Your task to perform on an android device: Search for vegetarian restaurants on Maps Image 0: 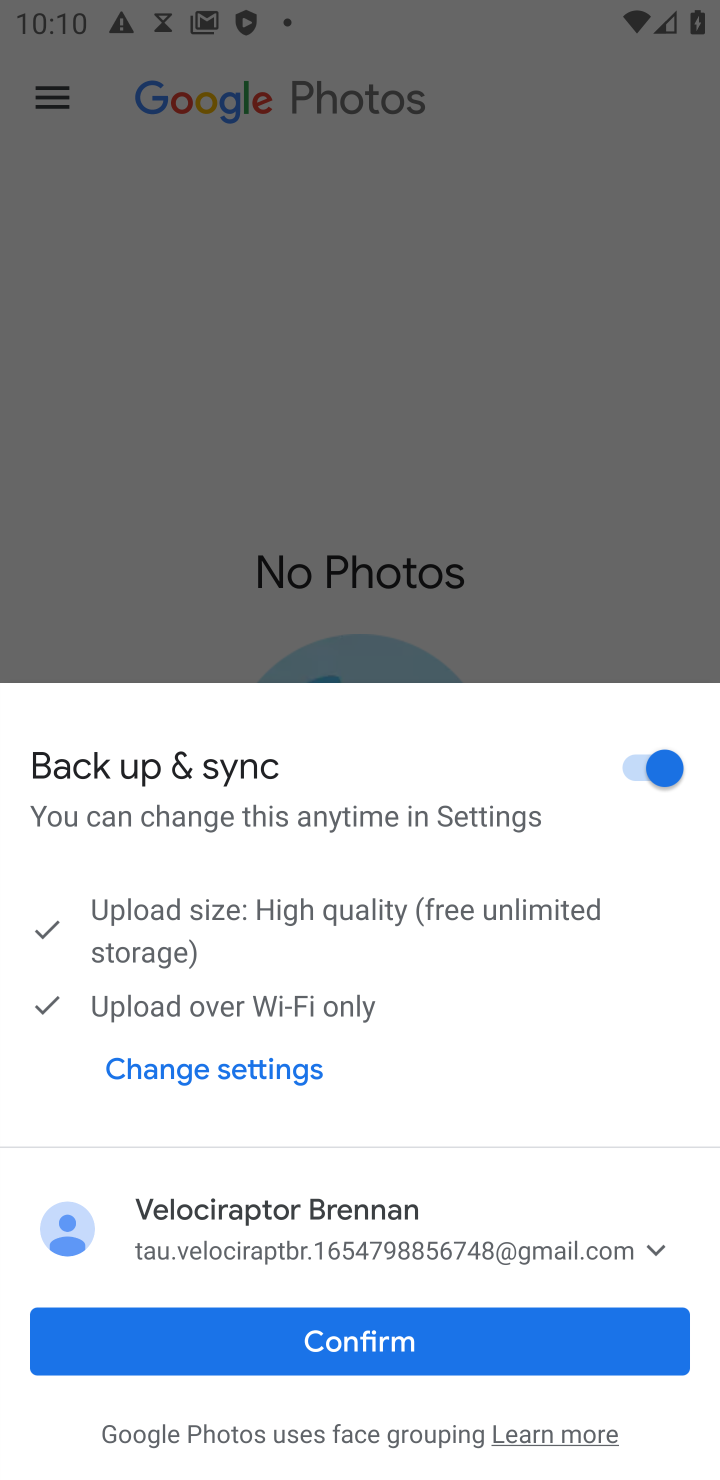
Step 0: press home button
Your task to perform on an android device: Search for vegetarian restaurants on Maps Image 1: 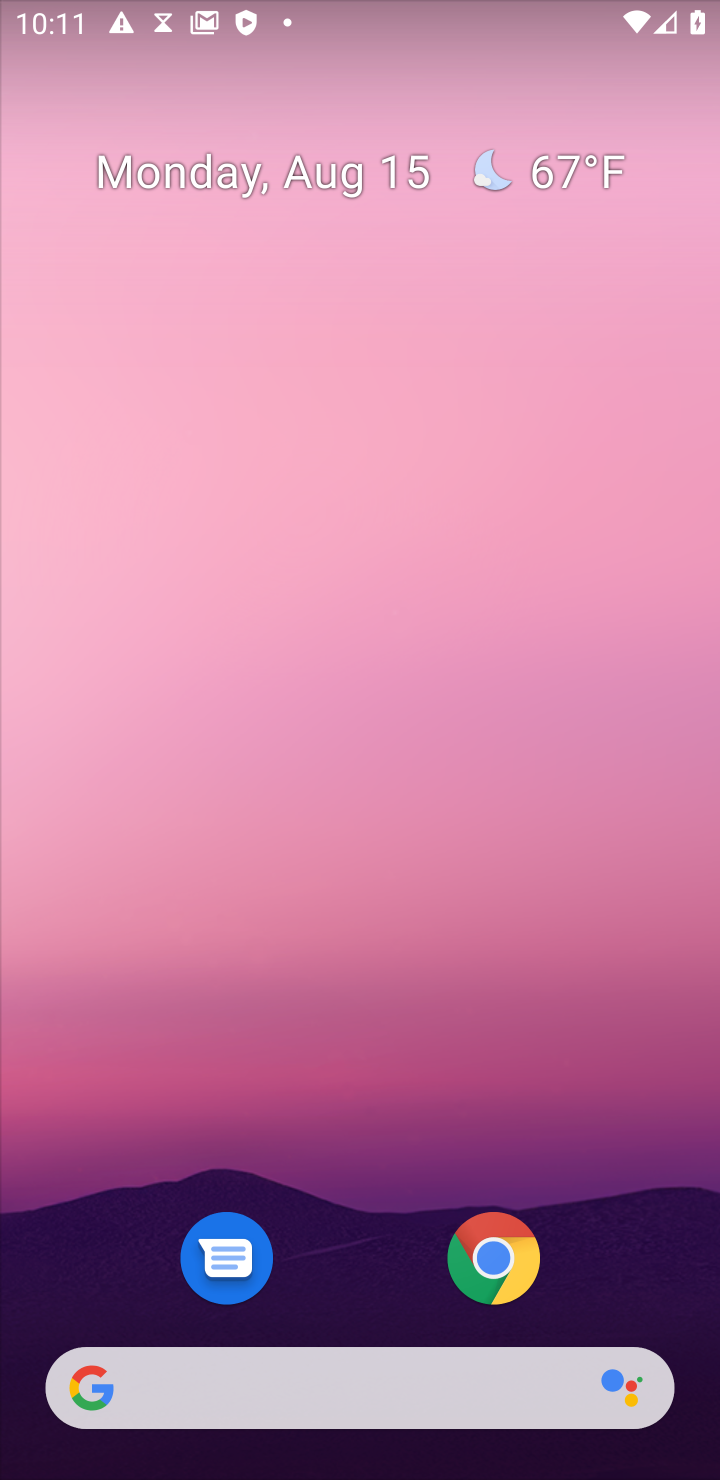
Step 1: drag from (375, 1056) to (372, 118)
Your task to perform on an android device: Search for vegetarian restaurants on Maps Image 2: 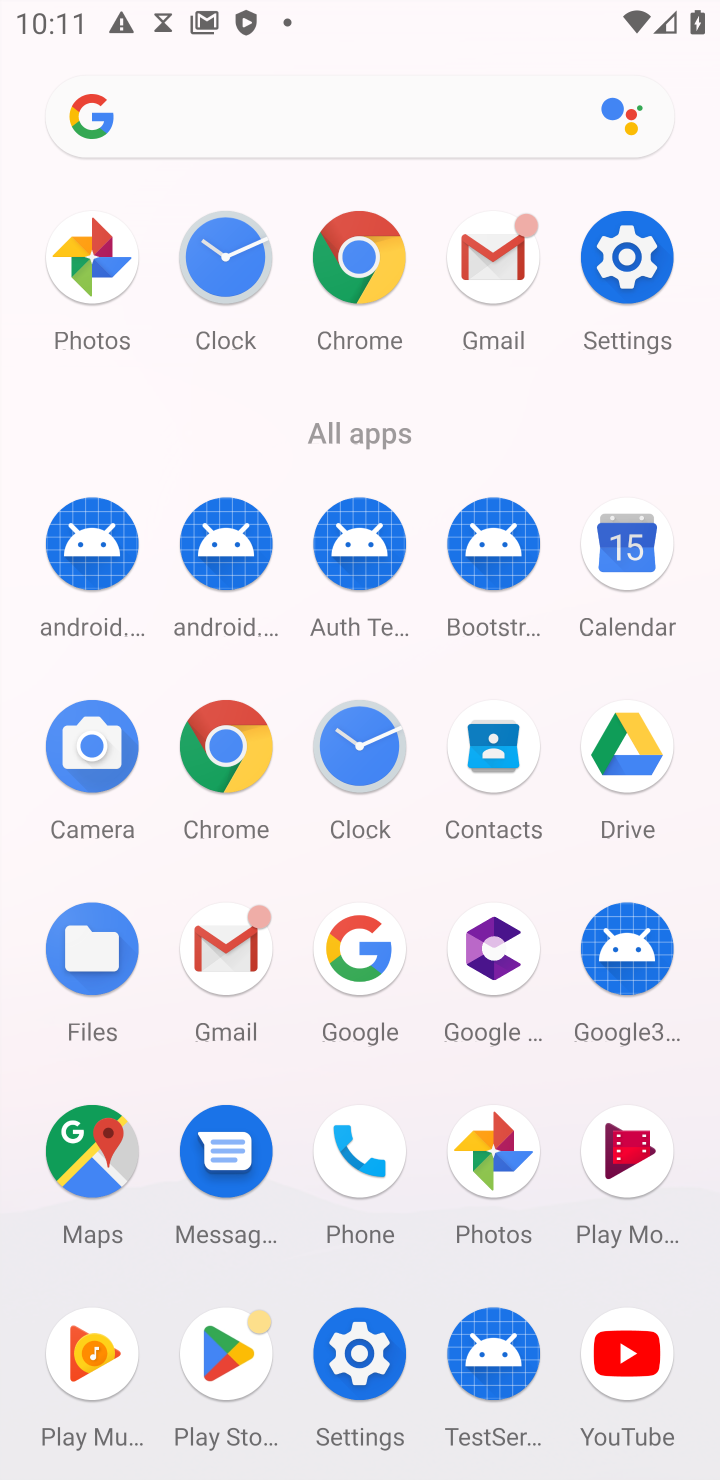
Step 2: click (72, 1166)
Your task to perform on an android device: Search for vegetarian restaurants on Maps Image 3: 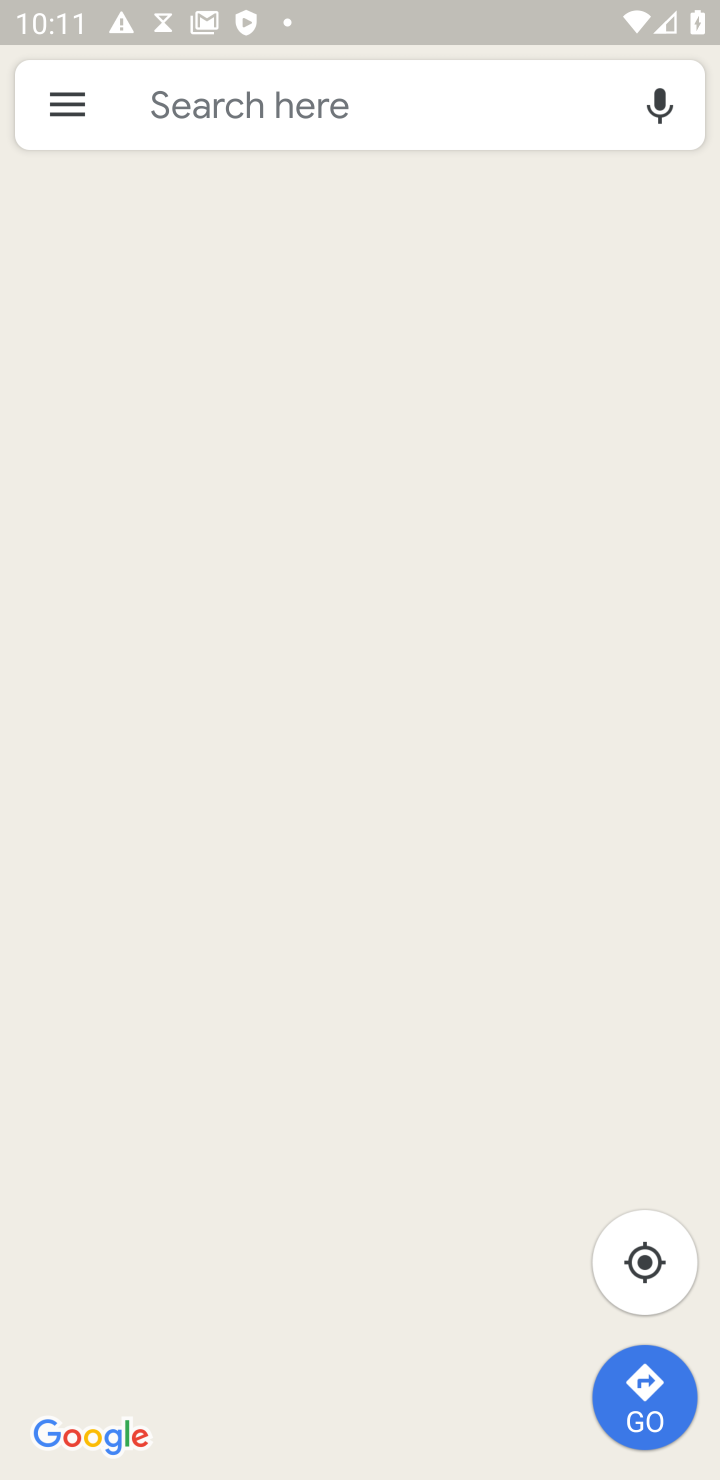
Step 3: click (338, 94)
Your task to perform on an android device: Search for vegetarian restaurants on Maps Image 4: 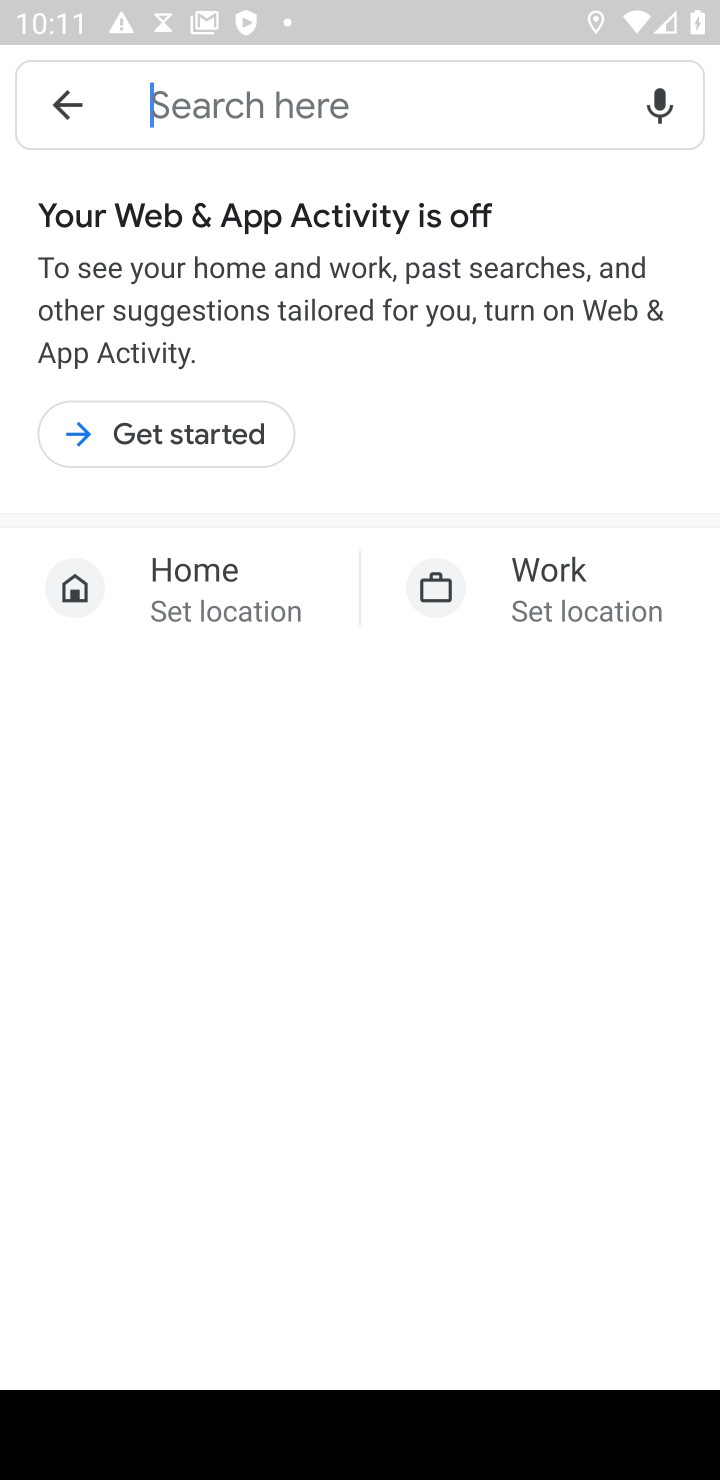
Step 4: type "vegetarian restaurants"
Your task to perform on an android device: Search for vegetarian restaurants on Maps Image 5: 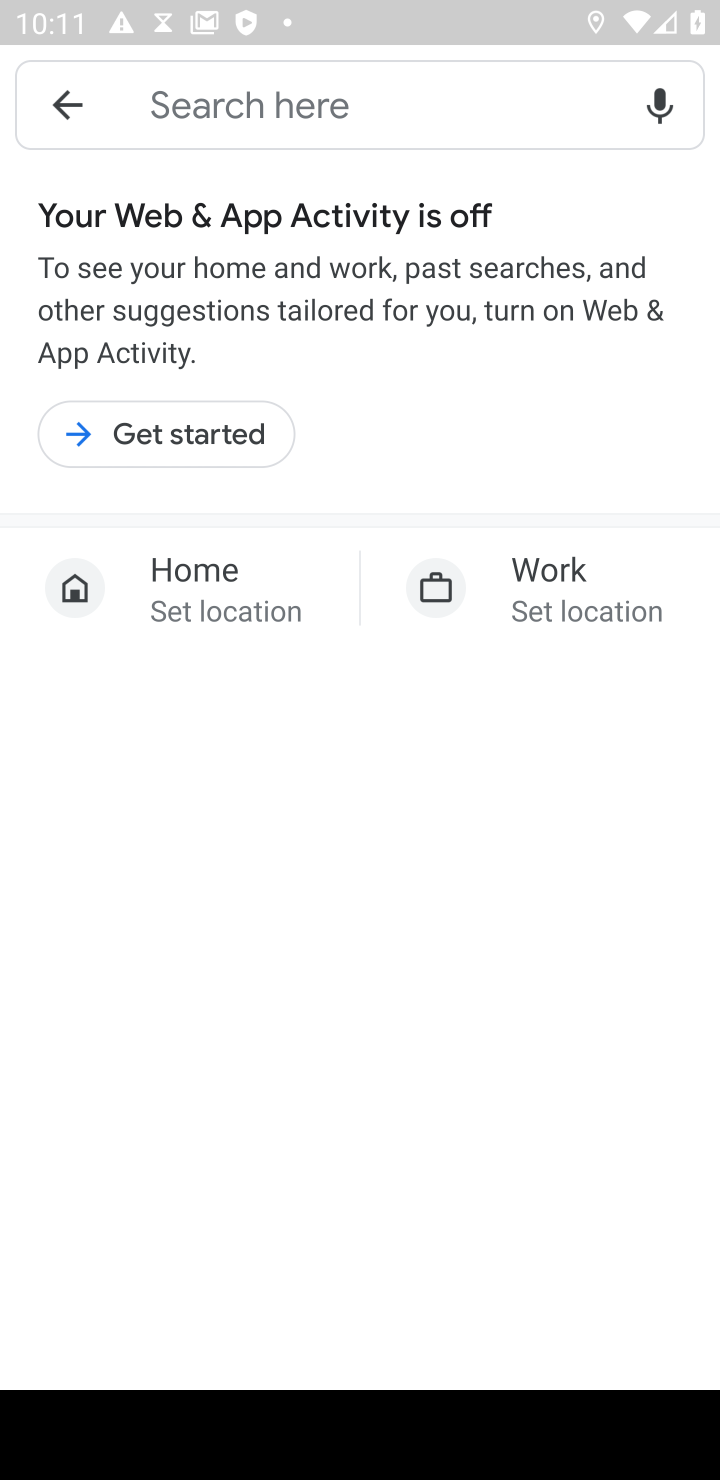
Step 5: click (288, 114)
Your task to perform on an android device: Search for vegetarian restaurants on Maps Image 6: 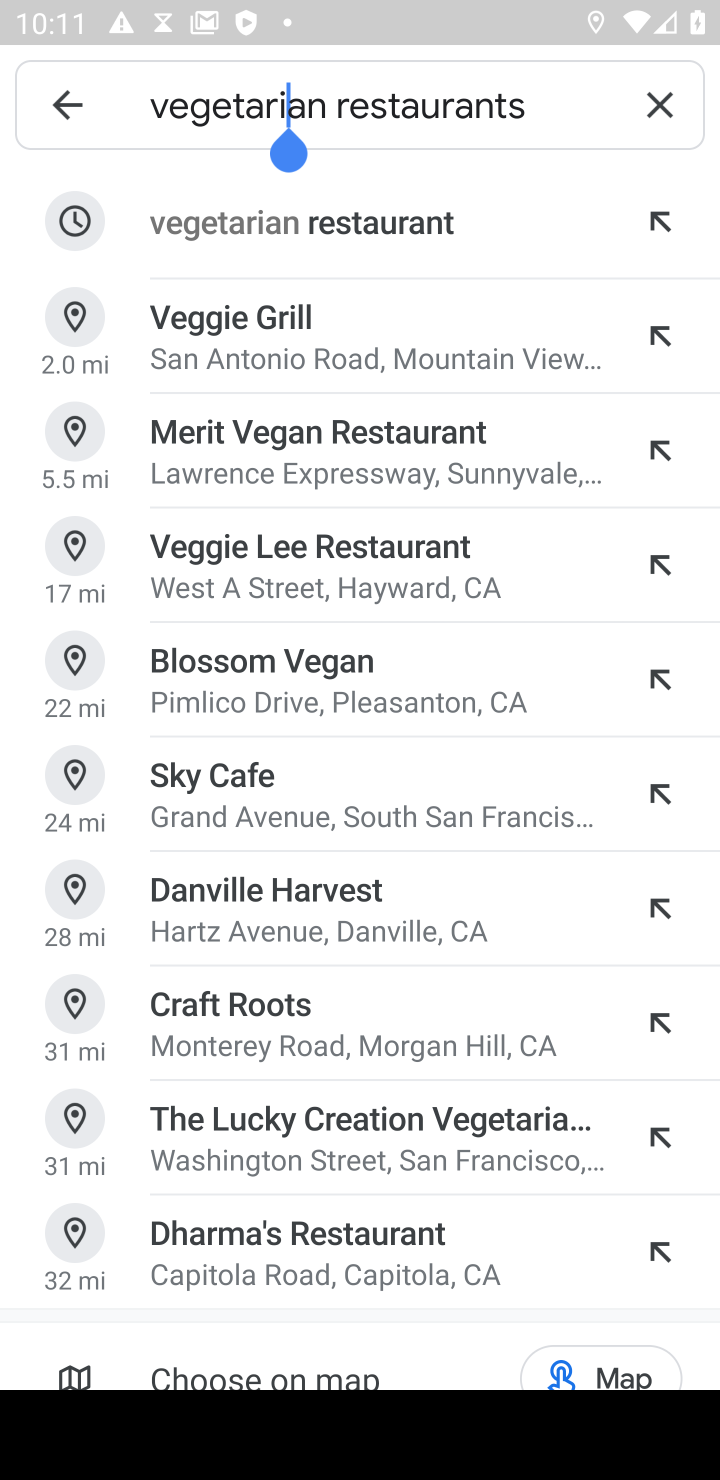
Step 6: click (331, 223)
Your task to perform on an android device: Search for vegetarian restaurants on Maps Image 7: 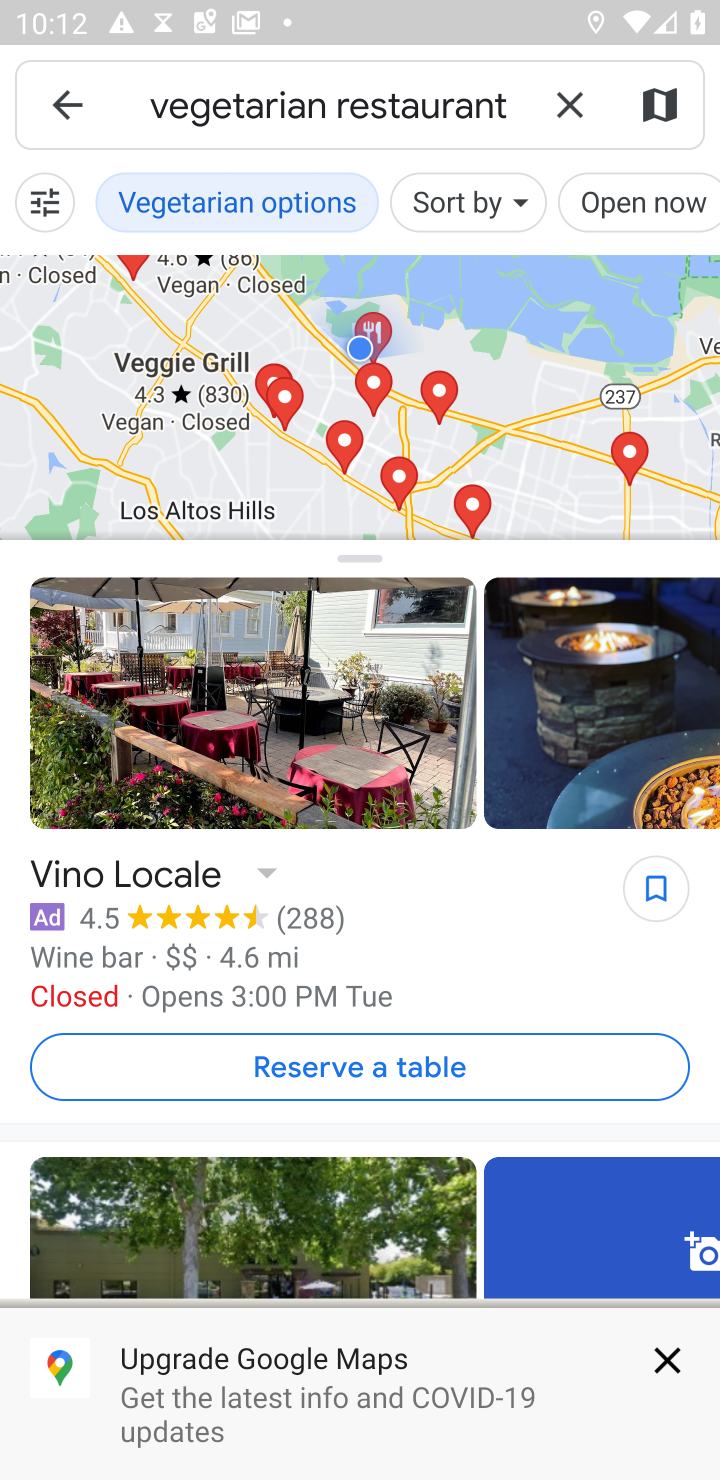
Step 7: task complete